Your task to perform on an android device: Open calendar and show me the second week of next month Image 0: 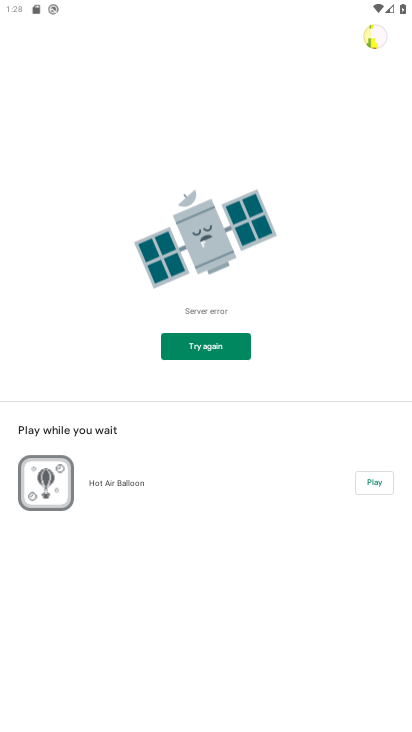
Step 0: press home button
Your task to perform on an android device: Open calendar and show me the second week of next month Image 1: 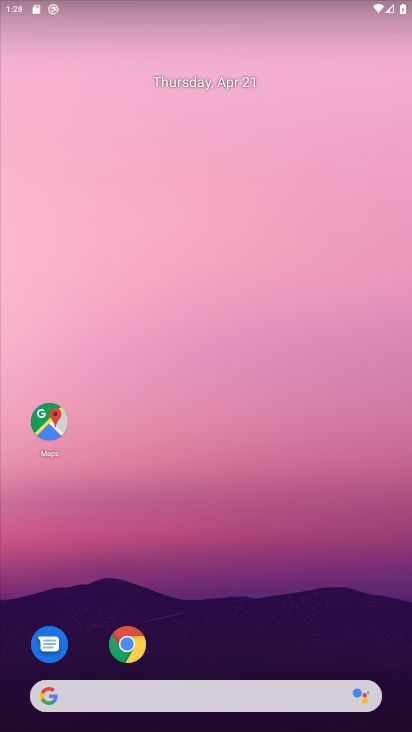
Step 1: click (47, 414)
Your task to perform on an android device: Open calendar and show me the second week of next month Image 2: 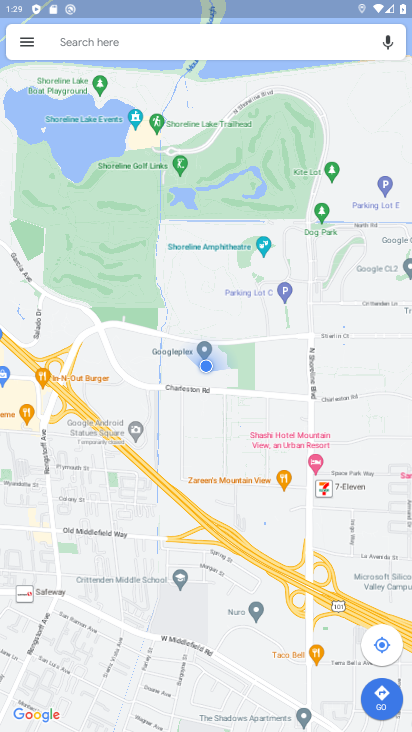
Step 2: press home button
Your task to perform on an android device: Open calendar and show me the second week of next month Image 3: 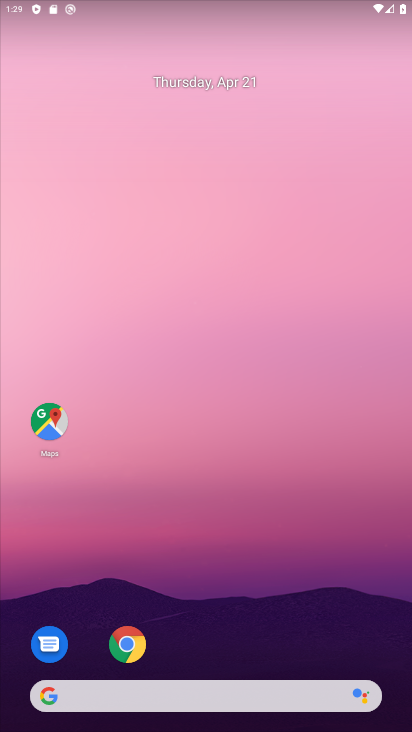
Step 3: drag from (259, 648) to (189, 254)
Your task to perform on an android device: Open calendar and show me the second week of next month Image 4: 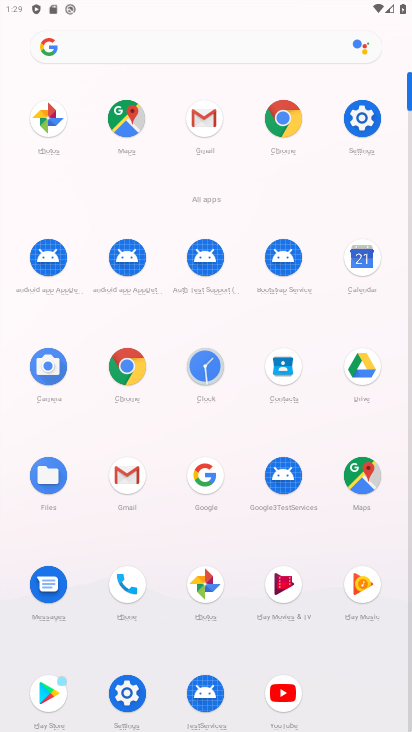
Step 4: click (366, 268)
Your task to perform on an android device: Open calendar and show me the second week of next month Image 5: 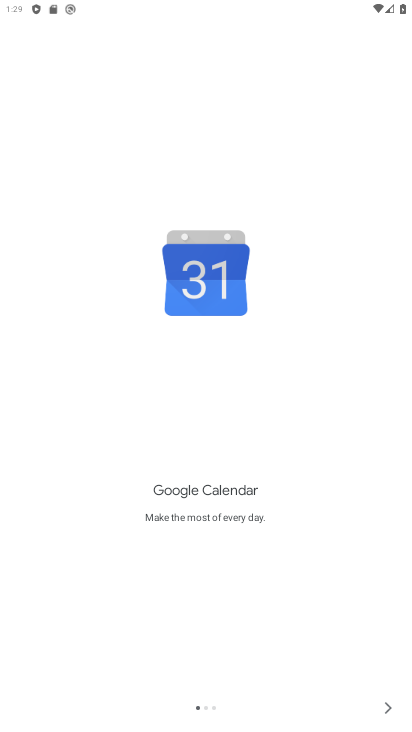
Step 5: click (386, 717)
Your task to perform on an android device: Open calendar and show me the second week of next month Image 6: 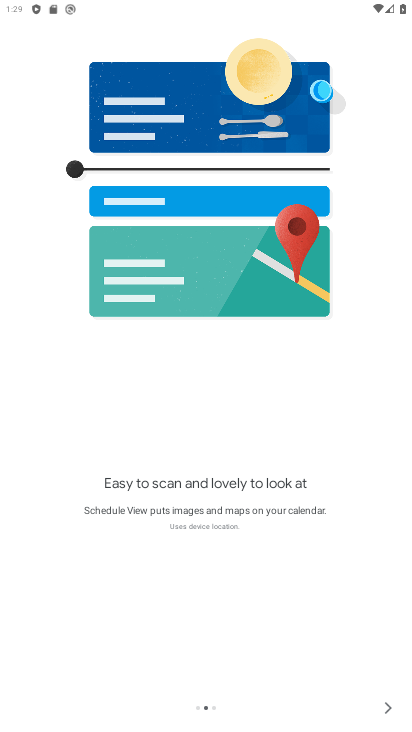
Step 6: click (386, 717)
Your task to perform on an android device: Open calendar and show me the second week of next month Image 7: 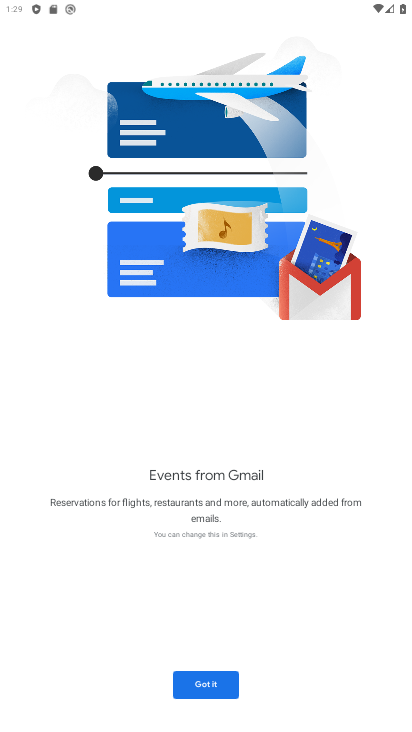
Step 7: click (214, 692)
Your task to perform on an android device: Open calendar and show me the second week of next month Image 8: 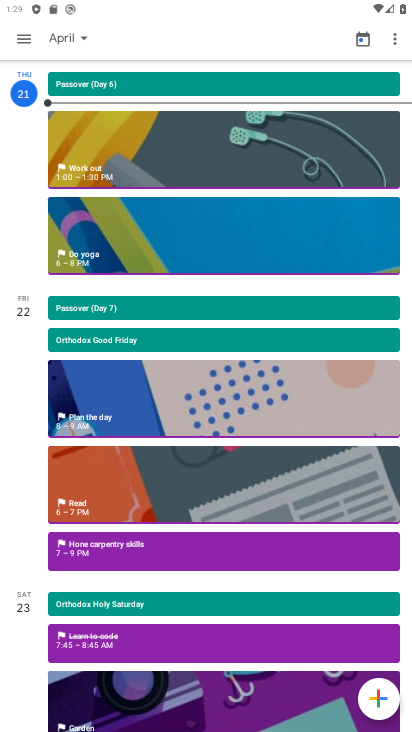
Step 8: click (74, 38)
Your task to perform on an android device: Open calendar and show me the second week of next month Image 9: 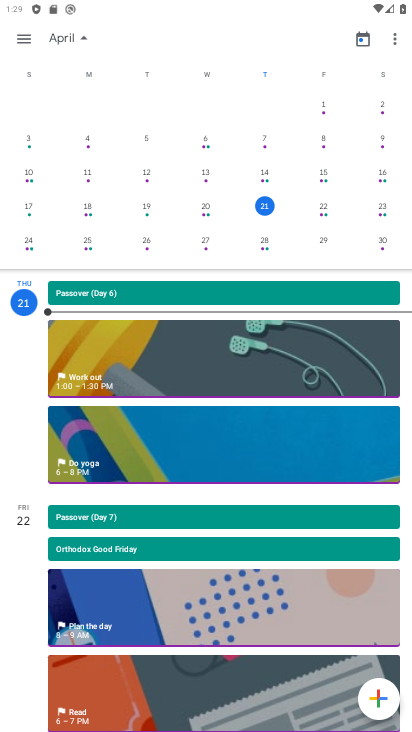
Step 9: drag from (401, 188) to (0, 173)
Your task to perform on an android device: Open calendar and show me the second week of next month Image 10: 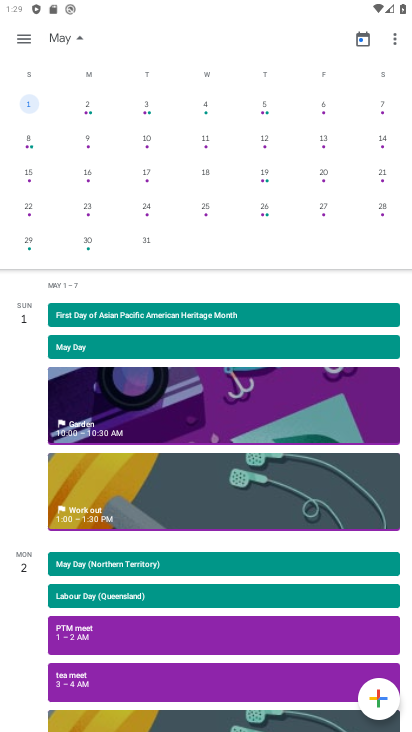
Step 10: click (15, 34)
Your task to perform on an android device: Open calendar and show me the second week of next month Image 11: 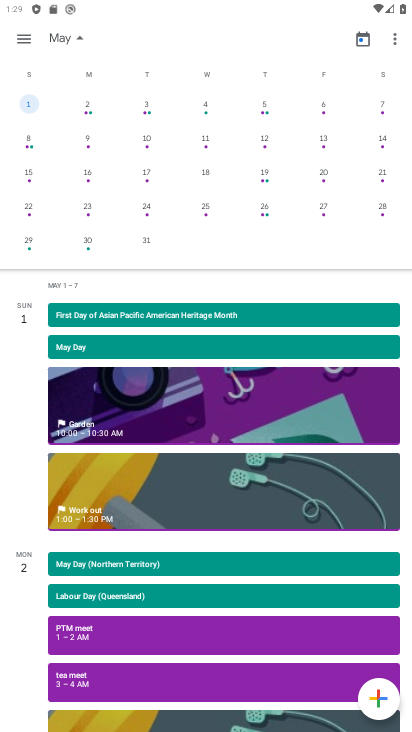
Step 11: click (15, 34)
Your task to perform on an android device: Open calendar and show me the second week of next month Image 12: 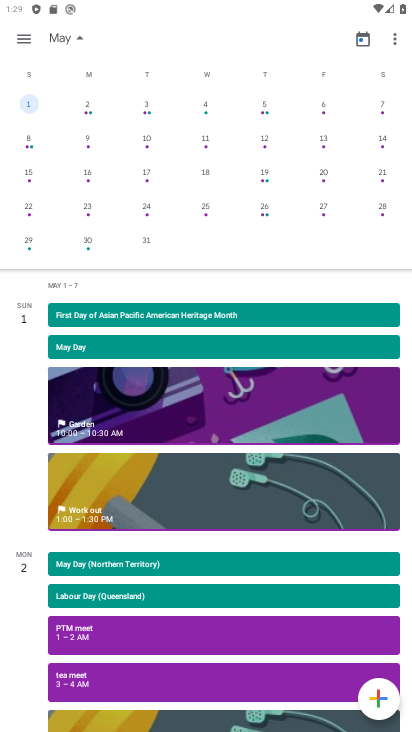
Step 12: click (15, 34)
Your task to perform on an android device: Open calendar and show me the second week of next month Image 13: 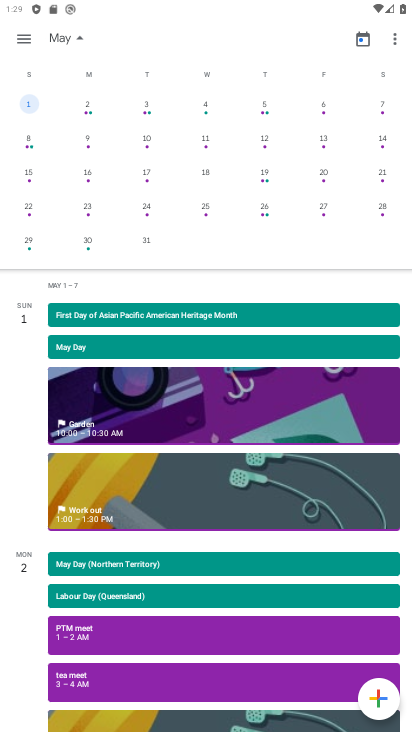
Step 13: click (22, 38)
Your task to perform on an android device: Open calendar and show me the second week of next month Image 14: 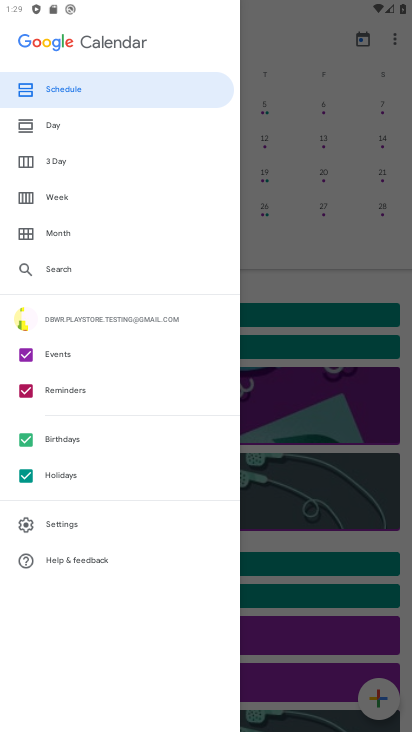
Step 14: click (53, 203)
Your task to perform on an android device: Open calendar and show me the second week of next month Image 15: 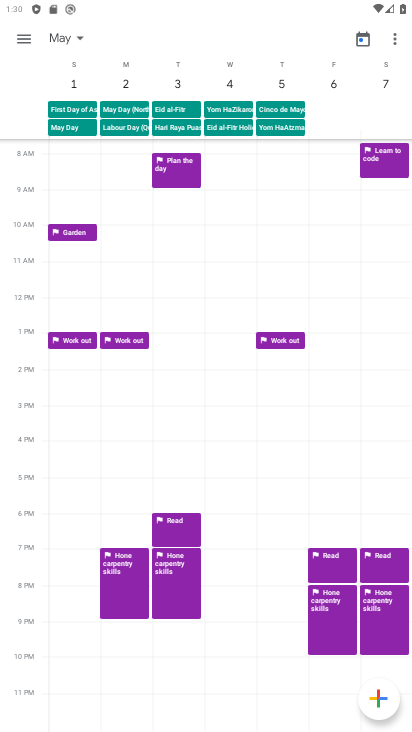
Step 15: click (72, 46)
Your task to perform on an android device: Open calendar and show me the second week of next month Image 16: 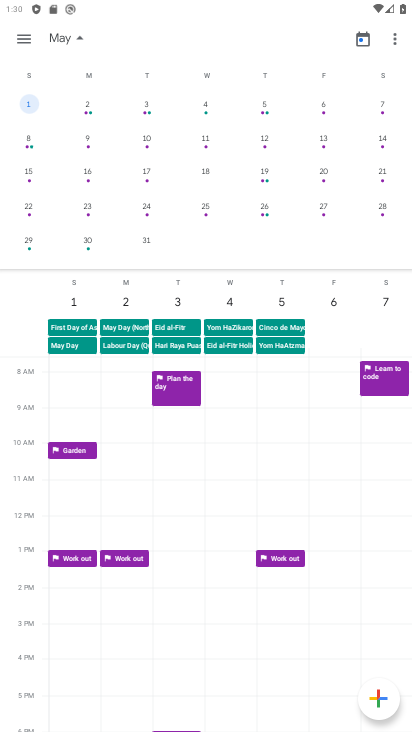
Step 16: click (142, 137)
Your task to perform on an android device: Open calendar and show me the second week of next month Image 17: 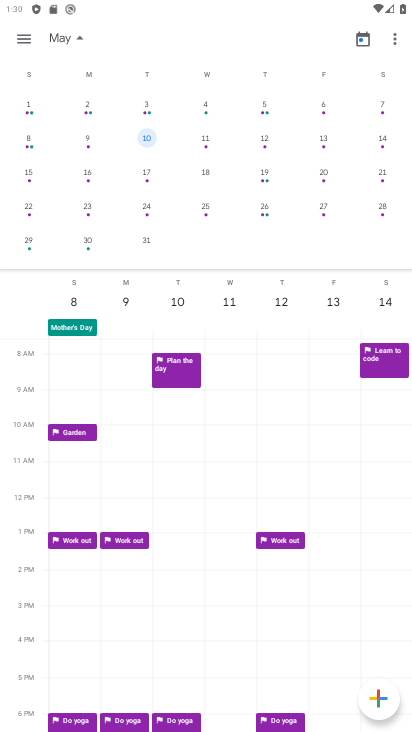
Step 17: click (82, 37)
Your task to perform on an android device: Open calendar and show me the second week of next month Image 18: 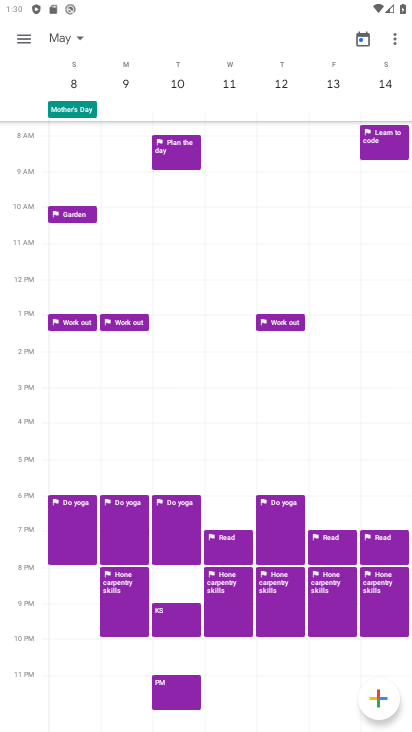
Step 18: task complete